Your task to perform on an android device: open the mobile data screen to see how much data has been used Image 0: 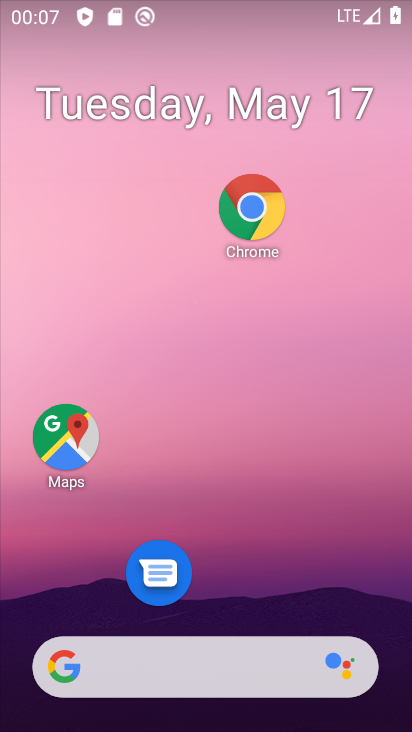
Step 0: drag from (360, 683) to (318, 69)
Your task to perform on an android device: open the mobile data screen to see how much data has been used Image 1: 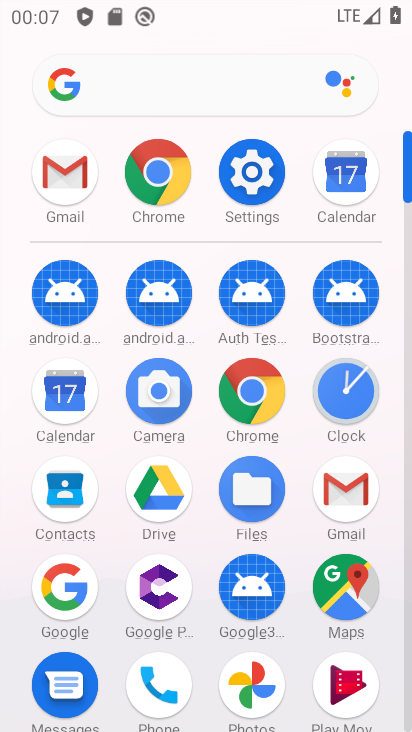
Step 1: click (246, 177)
Your task to perform on an android device: open the mobile data screen to see how much data has been used Image 2: 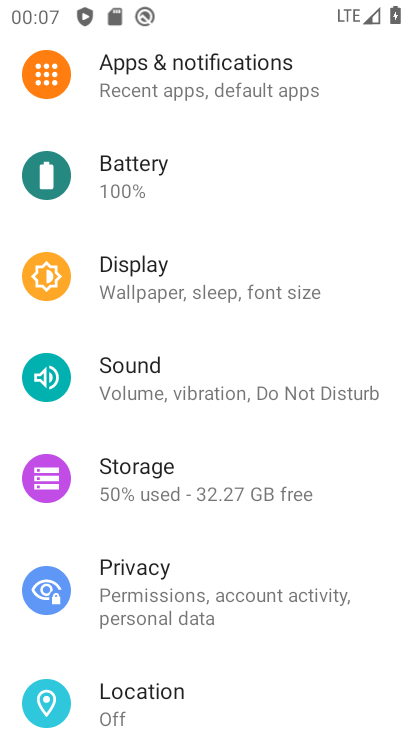
Step 2: drag from (220, 185) to (299, 716)
Your task to perform on an android device: open the mobile data screen to see how much data has been used Image 3: 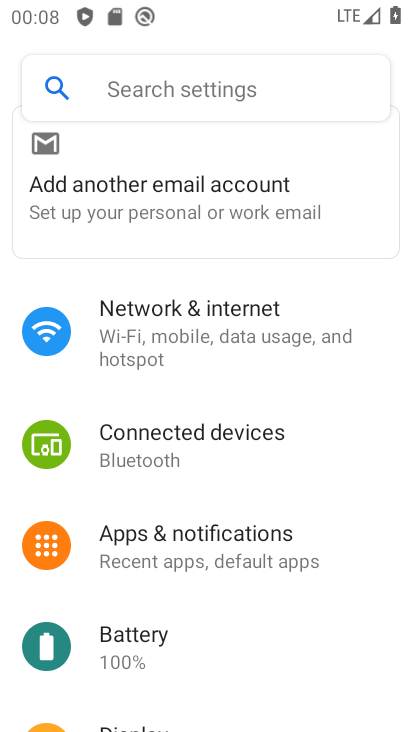
Step 3: click (218, 337)
Your task to perform on an android device: open the mobile data screen to see how much data has been used Image 4: 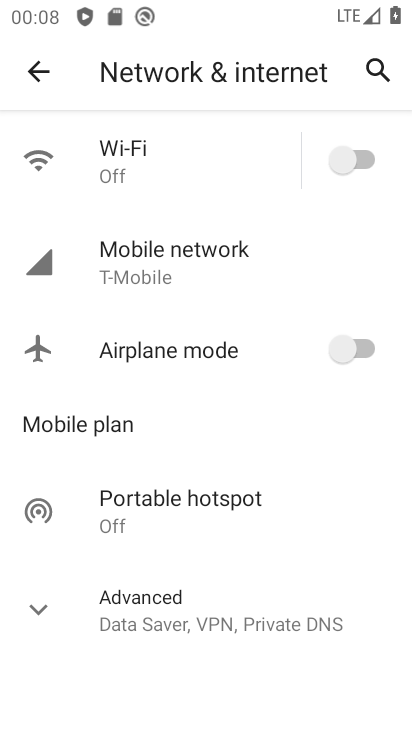
Step 4: click (202, 257)
Your task to perform on an android device: open the mobile data screen to see how much data has been used Image 5: 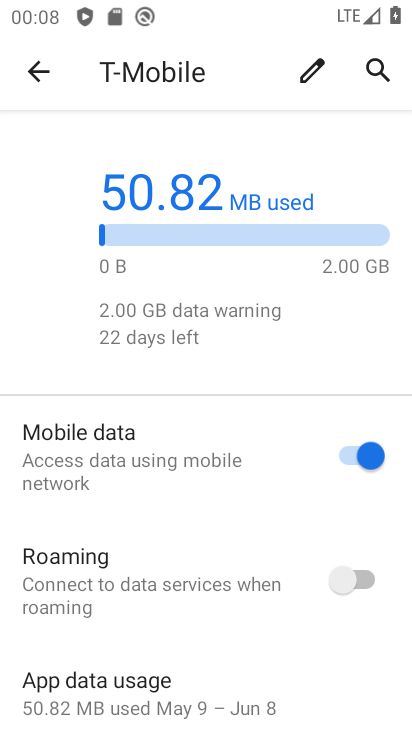
Step 5: task complete